Your task to perform on an android device: turn off airplane mode Image 0: 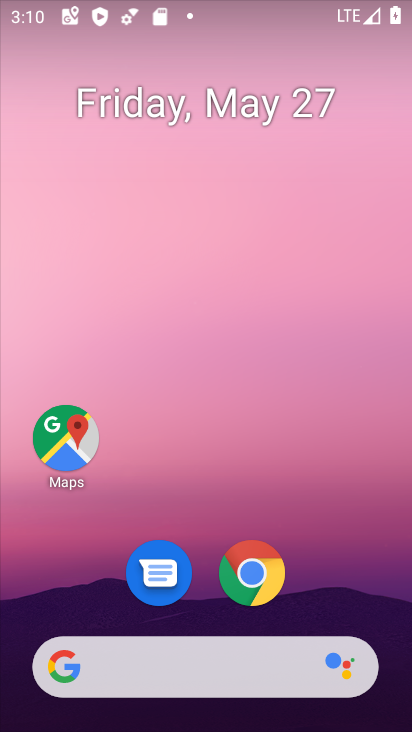
Step 0: drag from (276, 507) to (280, 40)
Your task to perform on an android device: turn off airplane mode Image 1: 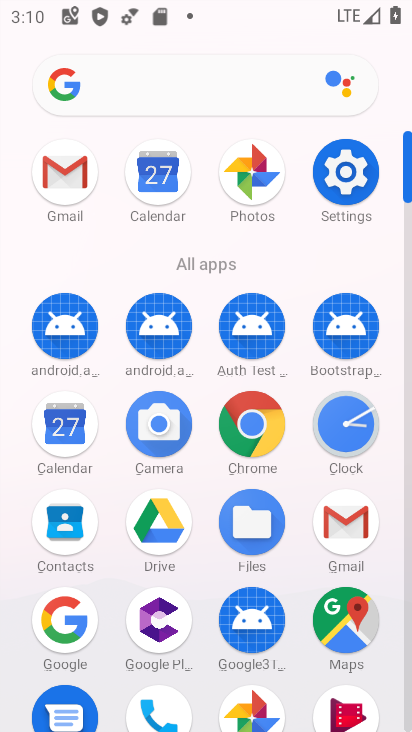
Step 1: click (334, 165)
Your task to perform on an android device: turn off airplane mode Image 2: 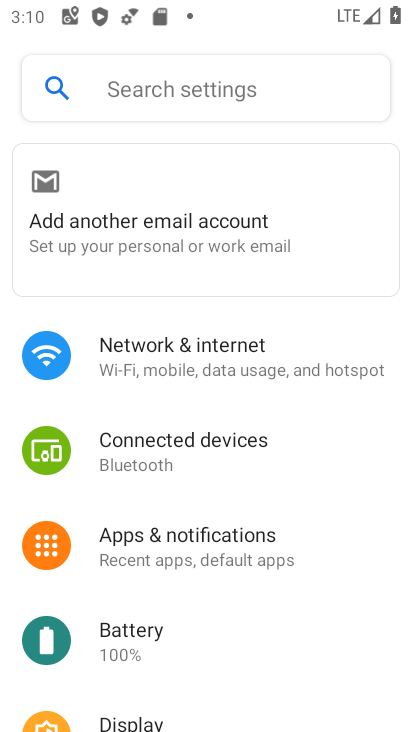
Step 2: click (273, 355)
Your task to perform on an android device: turn off airplane mode Image 3: 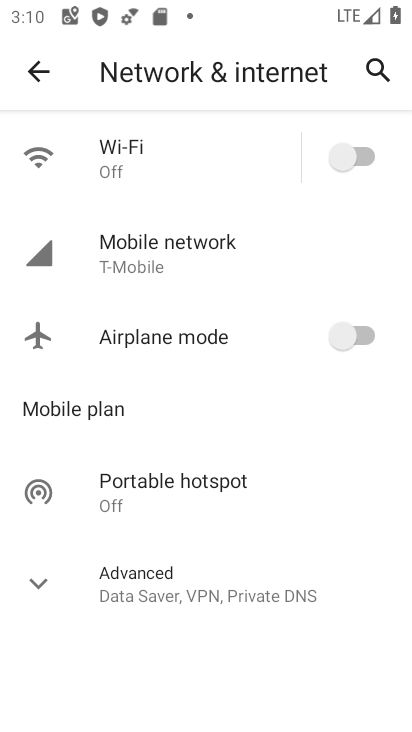
Step 3: task complete